Your task to perform on an android device: delete a single message in the gmail app Image 0: 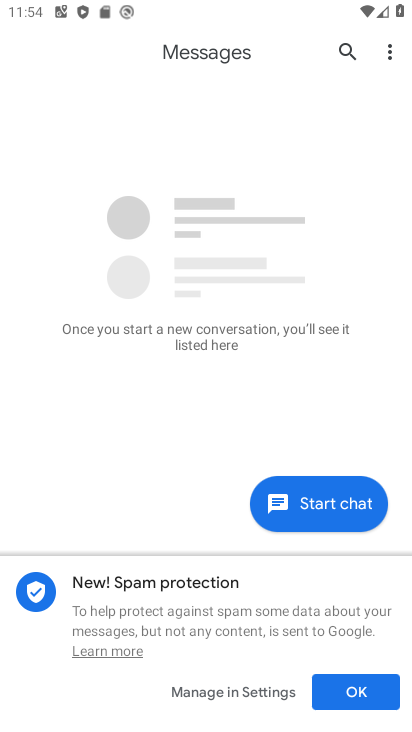
Step 0: press back button
Your task to perform on an android device: delete a single message in the gmail app Image 1: 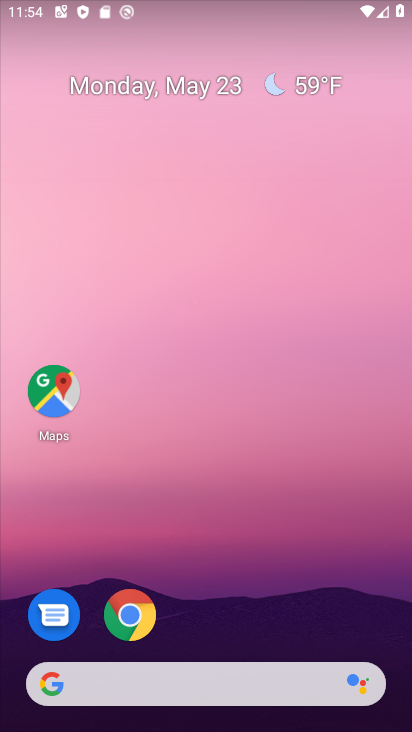
Step 1: drag from (316, 568) to (222, 0)
Your task to perform on an android device: delete a single message in the gmail app Image 2: 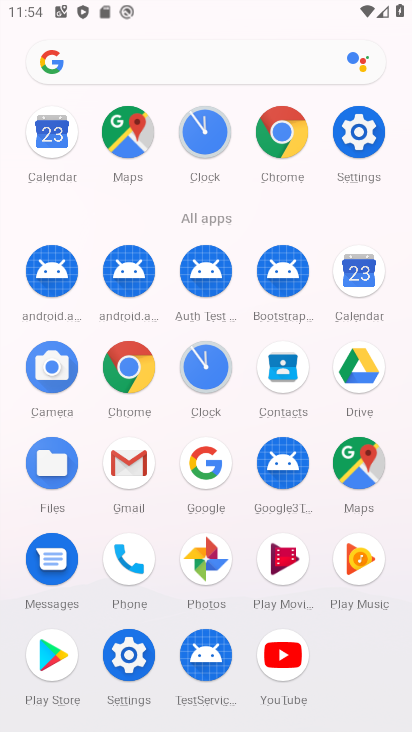
Step 2: click (127, 456)
Your task to perform on an android device: delete a single message in the gmail app Image 3: 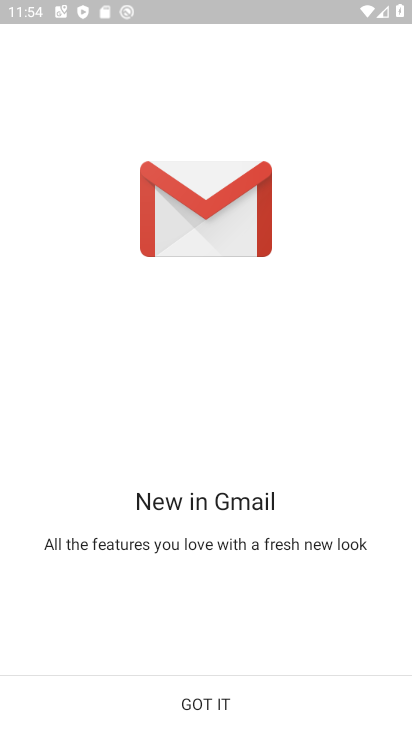
Step 3: click (202, 706)
Your task to perform on an android device: delete a single message in the gmail app Image 4: 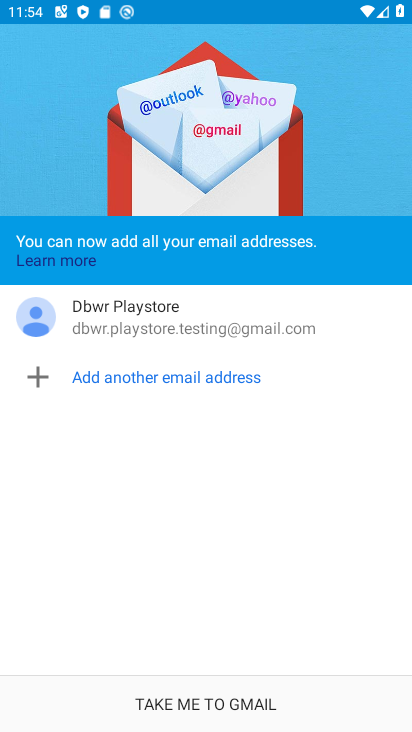
Step 4: click (206, 700)
Your task to perform on an android device: delete a single message in the gmail app Image 5: 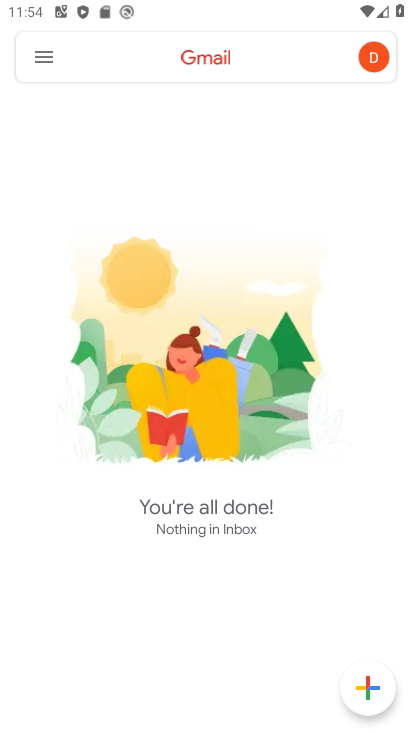
Step 5: click (46, 44)
Your task to perform on an android device: delete a single message in the gmail app Image 6: 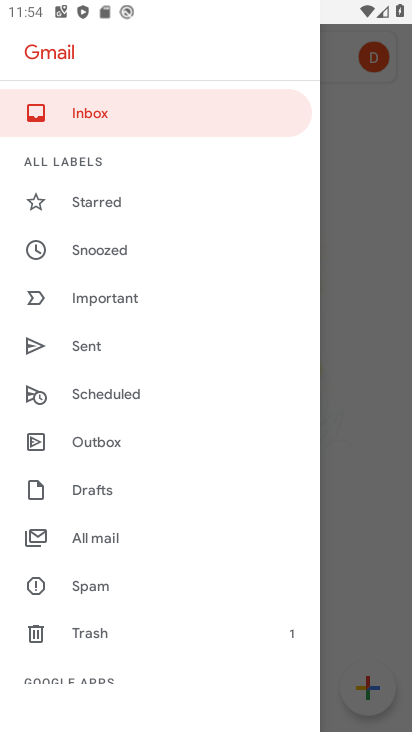
Step 6: click (106, 537)
Your task to perform on an android device: delete a single message in the gmail app Image 7: 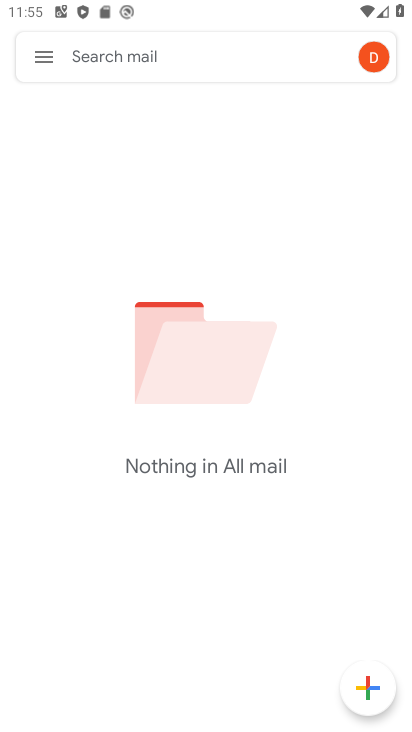
Step 7: task complete